Your task to perform on an android device: turn off location history Image 0: 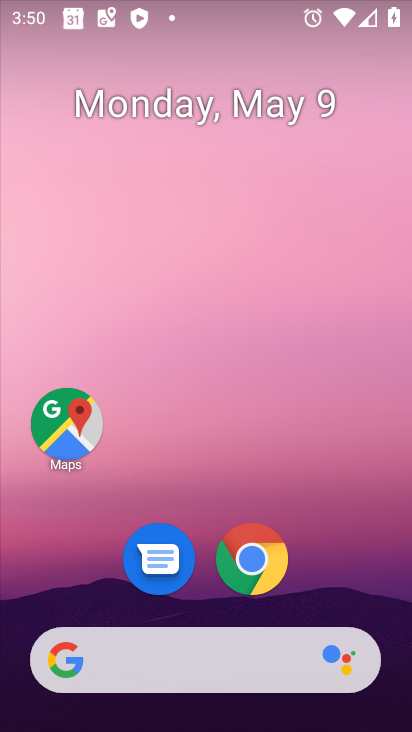
Step 0: drag from (212, 727) to (231, 151)
Your task to perform on an android device: turn off location history Image 1: 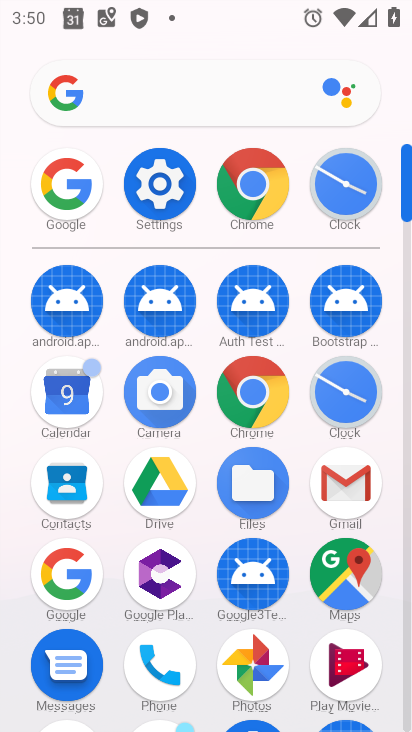
Step 1: click (148, 185)
Your task to perform on an android device: turn off location history Image 2: 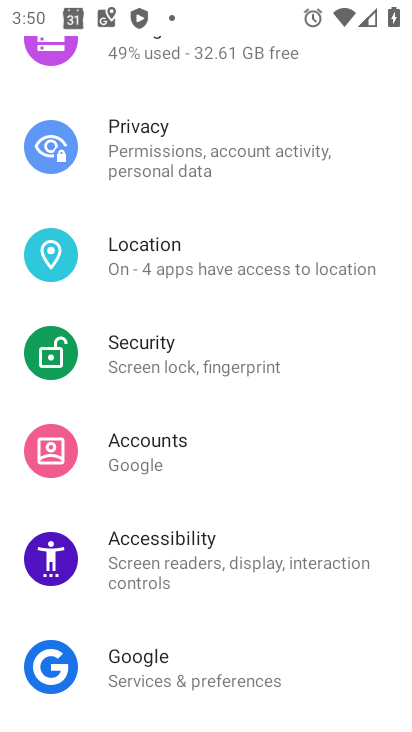
Step 2: click (152, 263)
Your task to perform on an android device: turn off location history Image 3: 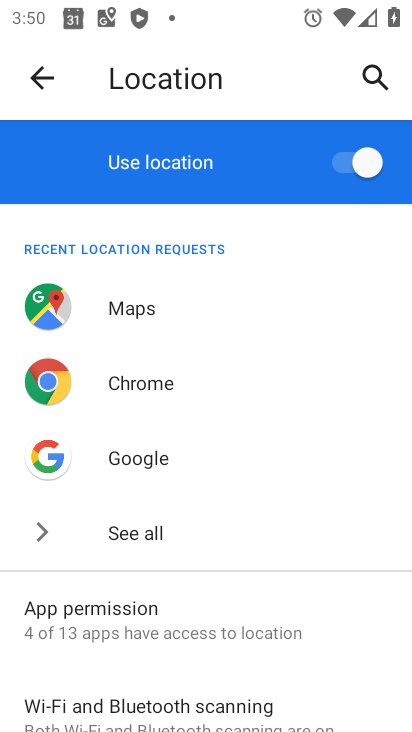
Step 3: drag from (195, 673) to (221, 326)
Your task to perform on an android device: turn off location history Image 4: 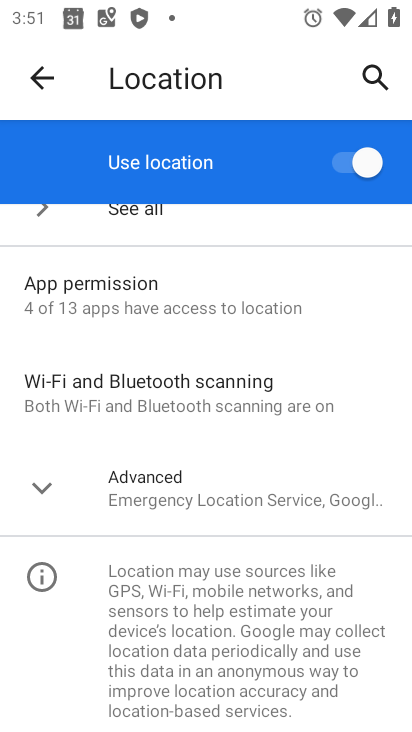
Step 4: click (156, 496)
Your task to perform on an android device: turn off location history Image 5: 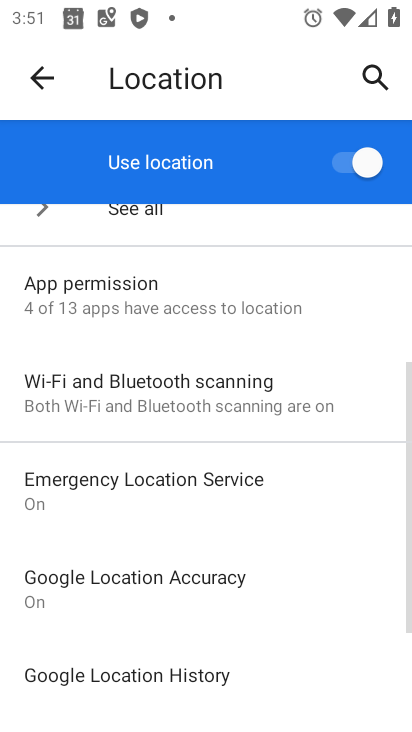
Step 5: drag from (225, 702) to (242, 497)
Your task to perform on an android device: turn off location history Image 6: 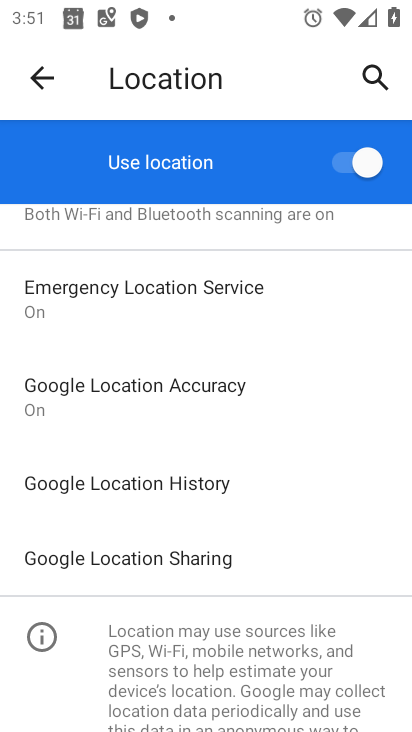
Step 6: click (126, 481)
Your task to perform on an android device: turn off location history Image 7: 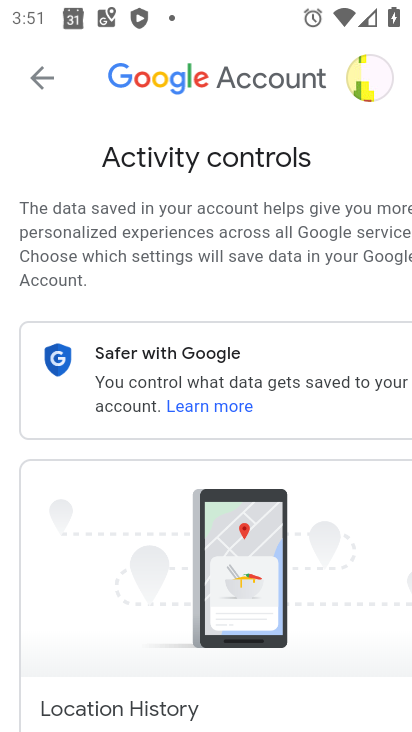
Step 7: drag from (248, 704) to (257, 391)
Your task to perform on an android device: turn off location history Image 8: 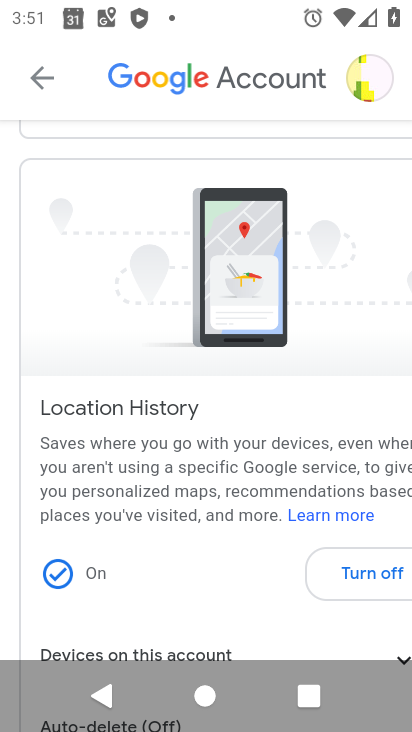
Step 8: click (370, 581)
Your task to perform on an android device: turn off location history Image 9: 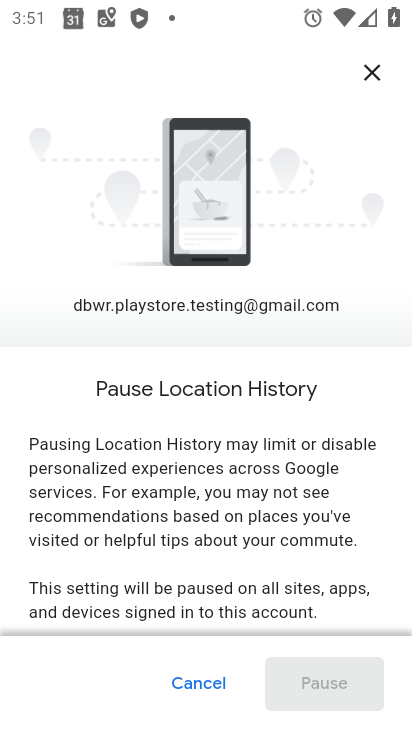
Step 9: drag from (220, 590) to (236, 191)
Your task to perform on an android device: turn off location history Image 10: 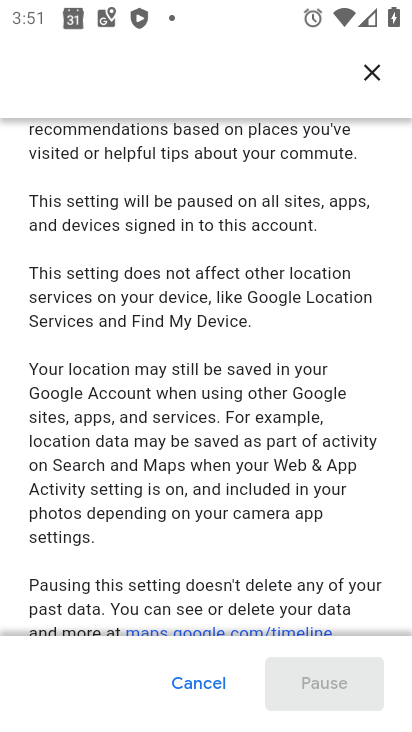
Step 10: drag from (275, 606) to (278, 188)
Your task to perform on an android device: turn off location history Image 11: 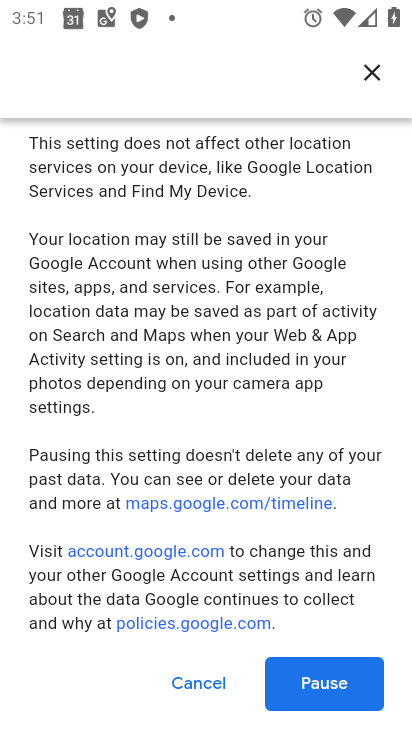
Step 11: click (317, 689)
Your task to perform on an android device: turn off location history Image 12: 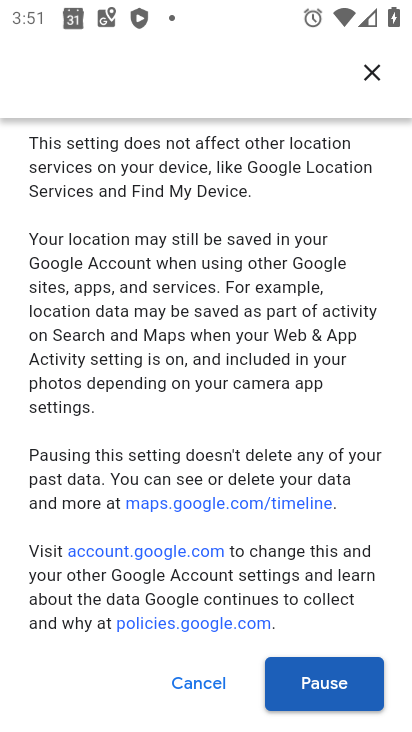
Step 12: click (311, 681)
Your task to perform on an android device: turn off location history Image 13: 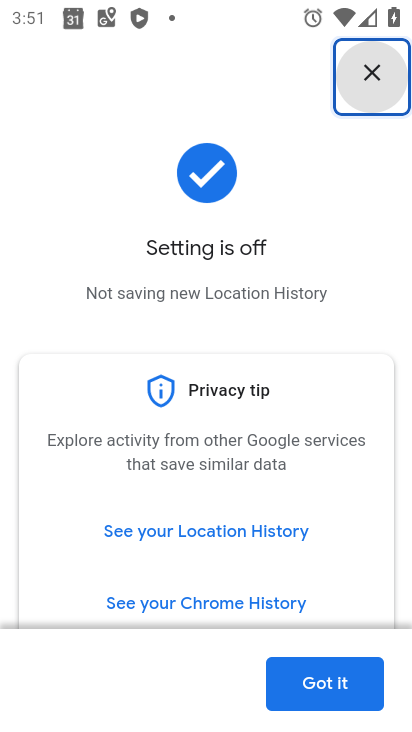
Step 13: task complete